Your task to perform on an android device: What's the weather? Image 0: 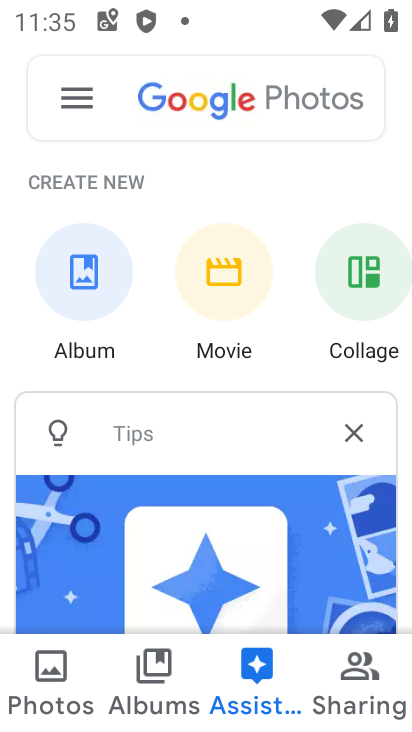
Step 0: press home button
Your task to perform on an android device: What's the weather? Image 1: 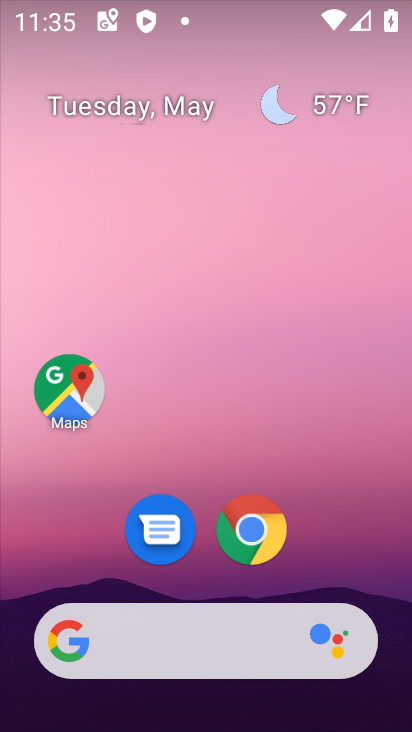
Step 1: click (355, 112)
Your task to perform on an android device: What's the weather? Image 2: 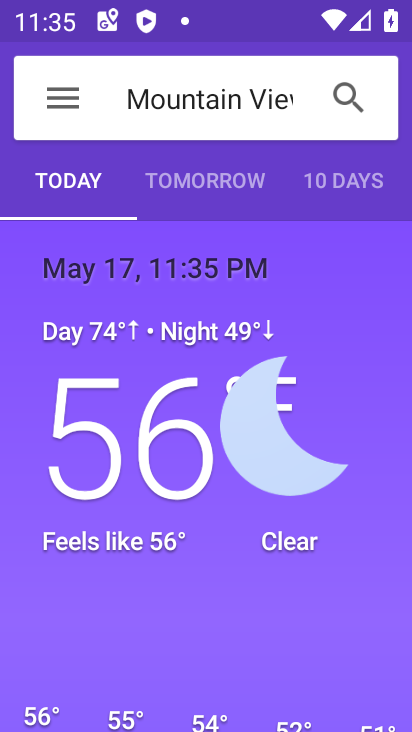
Step 2: task complete